Your task to perform on an android device: Open notification settings Image 0: 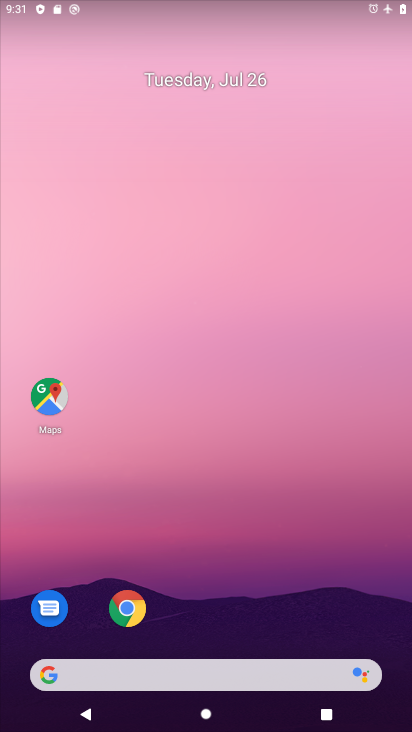
Step 0: drag from (227, 691) to (216, 44)
Your task to perform on an android device: Open notification settings Image 1: 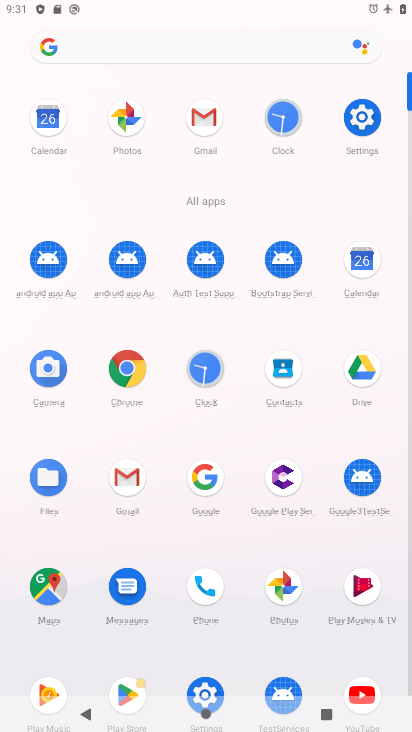
Step 1: click (361, 119)
Your task to perform on an android device: Open notification settings Image 2: 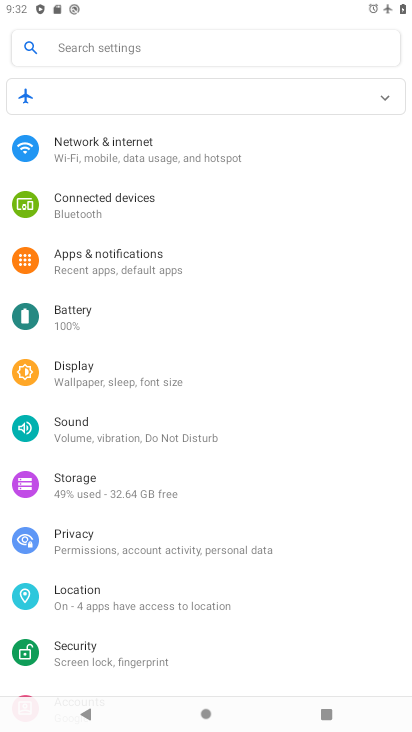
Step 2: click (116, 251)
Your task to perform on an android device: Open notification settings Image 3: 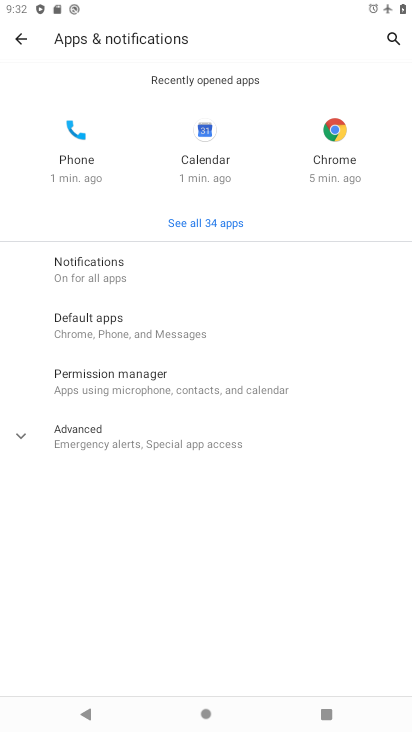
Step 3: click (96, 262)
Your task to perform on an android device: Open notification settings Image 4: 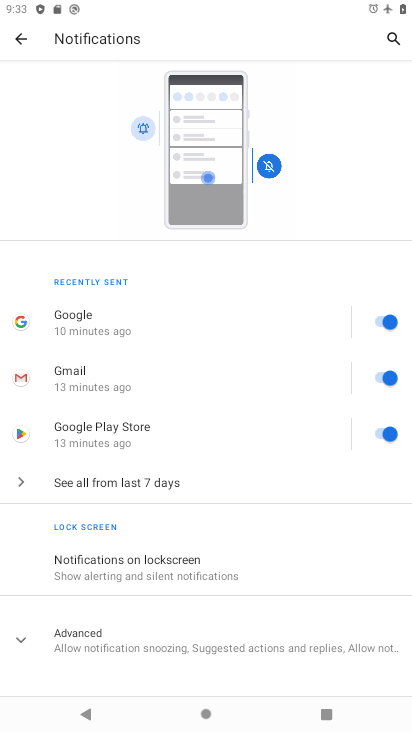
Step 4: task complete